Your task to perform on an android device: Open Google Image 0: 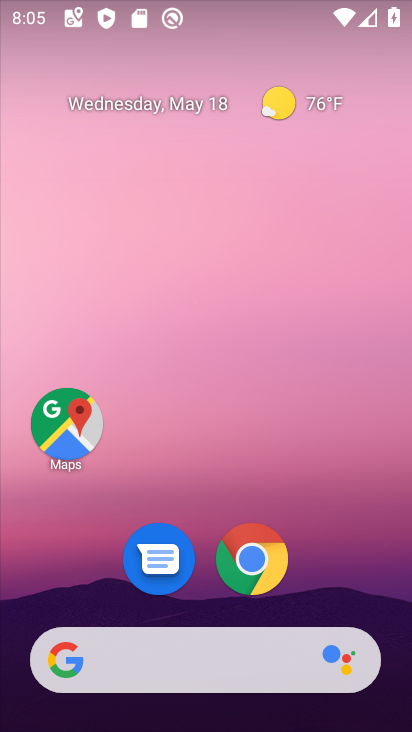
Step 0: drag from (212, 615) to (165, 64)
Your task to perform on an android device: Open Google Image 1: 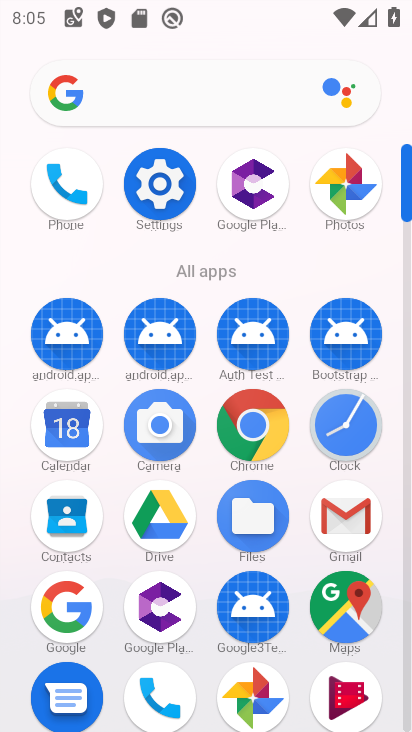
Step 1: click (73, 609)
Your task to perform on an android device: Open Google Image 2: 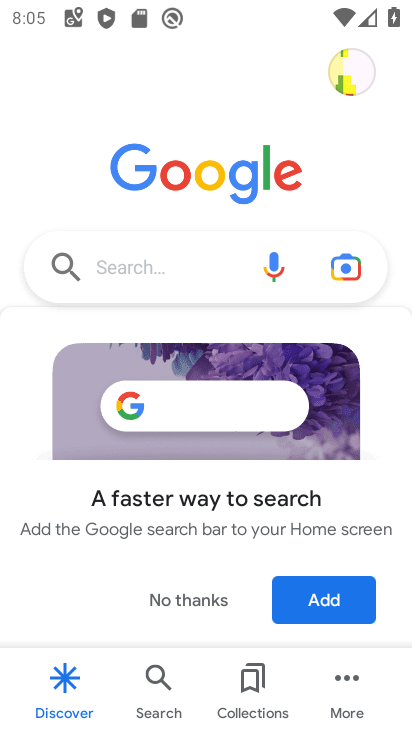
Step 2: task complete